Your task to perform on an android device: Open Amazon Image 0: 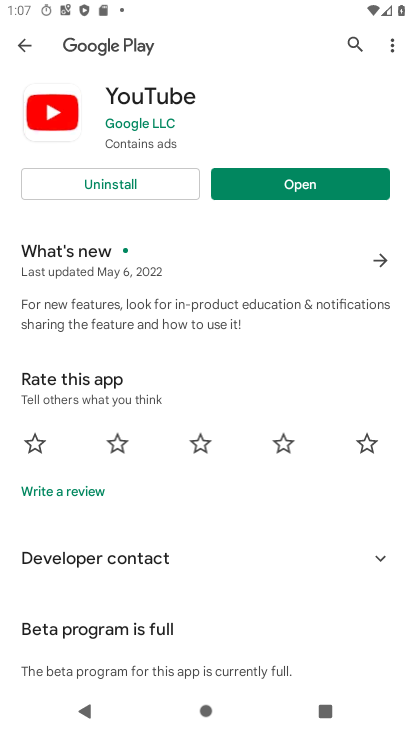
Step 0: press home button
Your task to perform on an android device: Open Amazon Image 1: 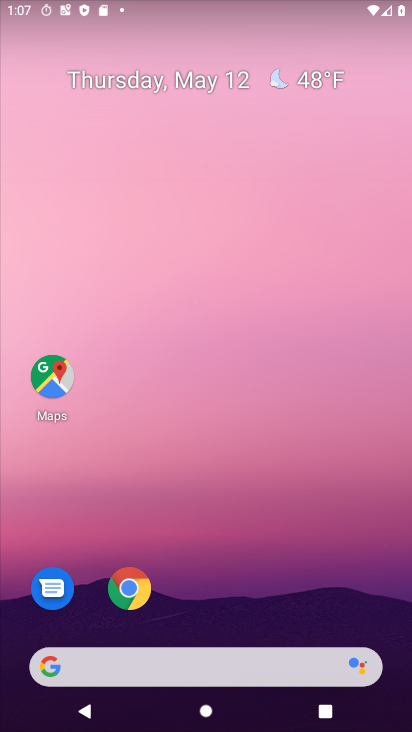
Step 1: click (132, 586)
Your task to perform on an android device: Open Amazon Image 2: 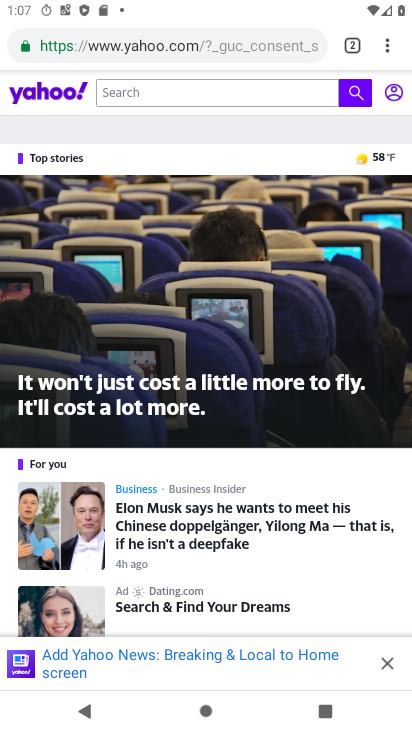
Step 2: press back button
Your task to perform on an android device: Open Amazon Image 3: 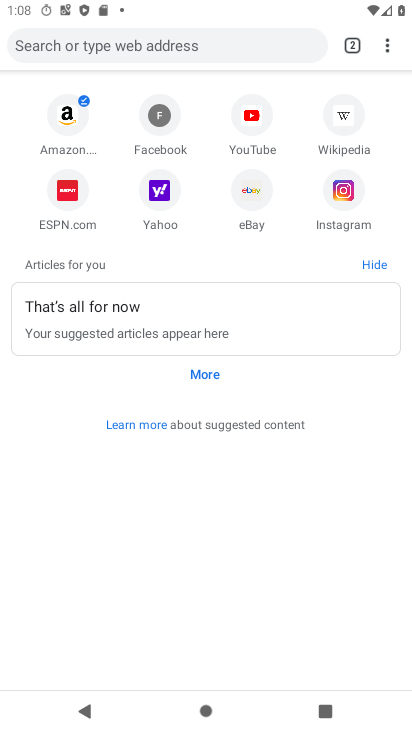
Step 3: click (58, 110)
Your task to perform on an android device: Open Amazon Image 4: 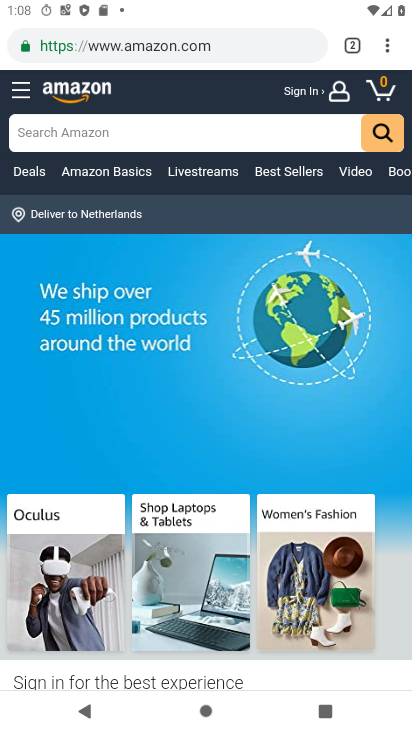
Step 4: task complete